Your task to perform on an android device: turn on translation in the chrome app Image 0: 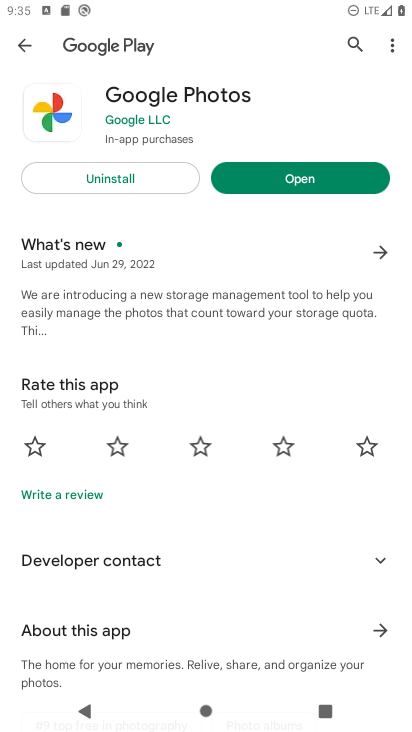
Step 0: press home button
Your task to perform on an android device: turn on translation in the chrome app Image 1: 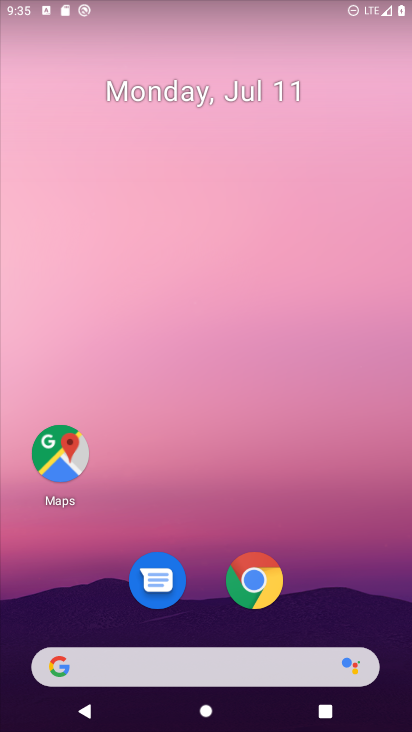
Step 1: click (267, 591)
Your task to perform on an android device: turn on translation in the chrome app Image 2: 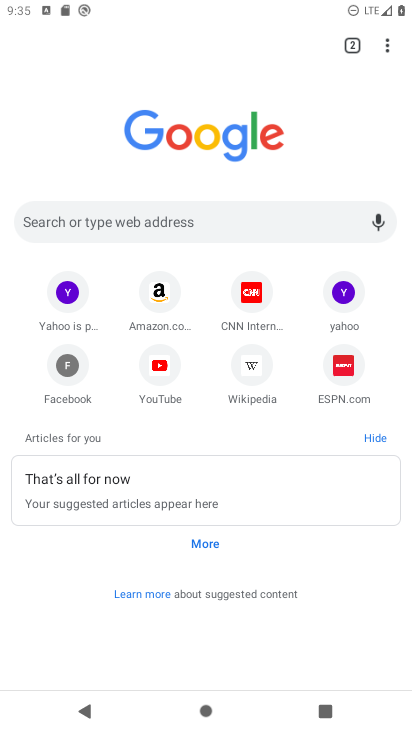
Step 2: click (385, 51)
Your task to perform on an android device: turn on translation in the chrome app Image 3: 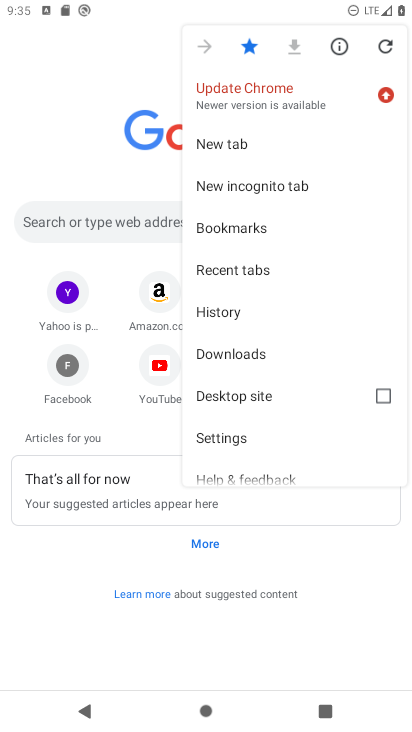
Step 3: click (240, 435)
Your task to perform on an android device: turn on translation in the chrome app Image 4: 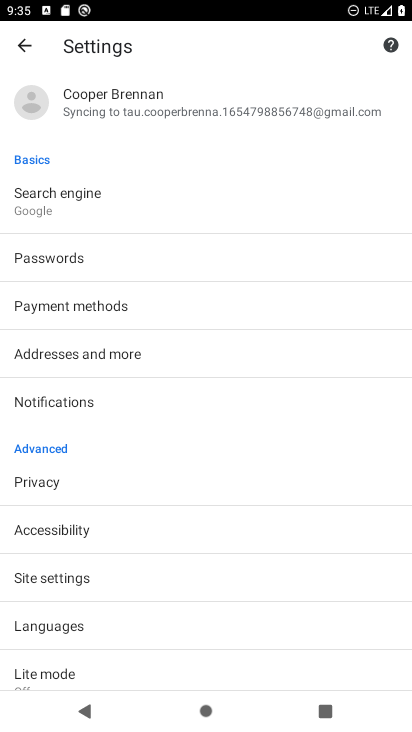
Step 4: click (146, 622)
Your task to perform on an android device: turn on translation in the chrome app Image 5: 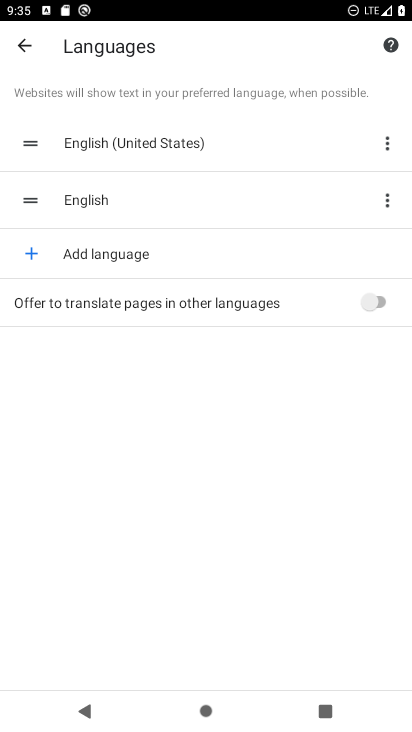
Step 5: click (375, 295)
Your task to perform on an android device: turn on translation in the chrome app Image 6: 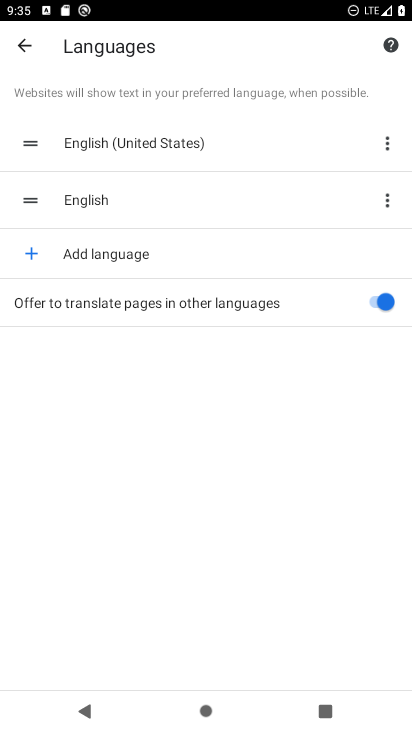
Step 6: task complete